Your task to perform on an android device: find snoozed emails in the gmail app Image 0: 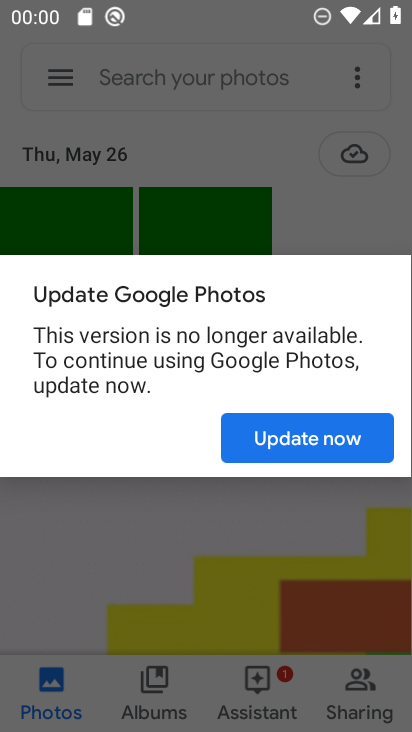
Step 0: press home button
Your task to perform on an android device: find snoozed emails in the gmail app Image 1: 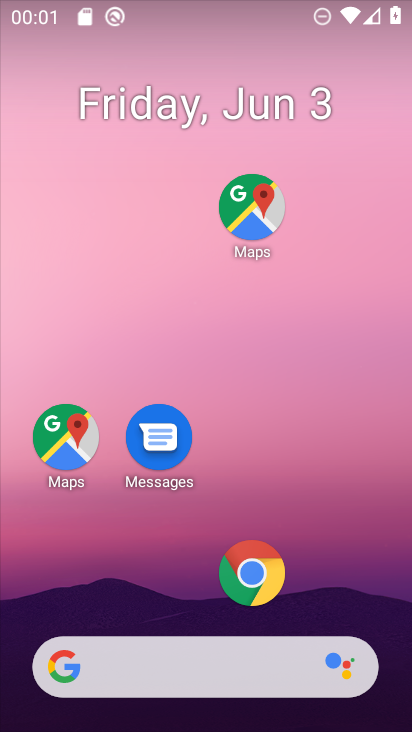
Step 1: drag from (315, 597) to (248, 41)
Your task to perform on an android device: find snoozed emails in the gmail app Image 2: 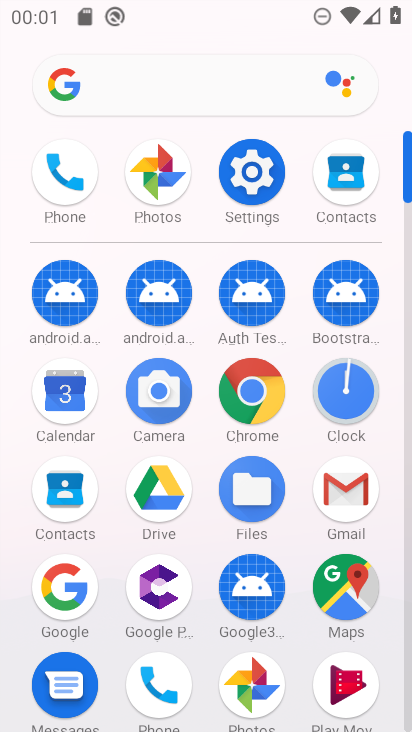
Step 2: click (347, 487)
Your task to perform on an android device: find snoozed emails in the gmail app Image 3: 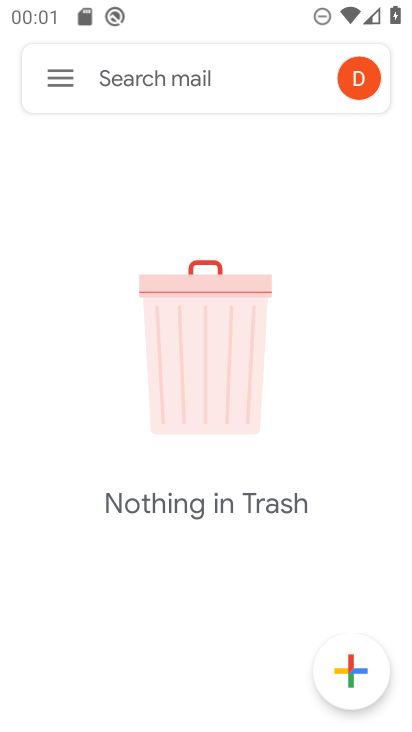
Step 3: click (59, 75)
Your task to perform on an android device: find snoozed emails in the gmail app Image 4: 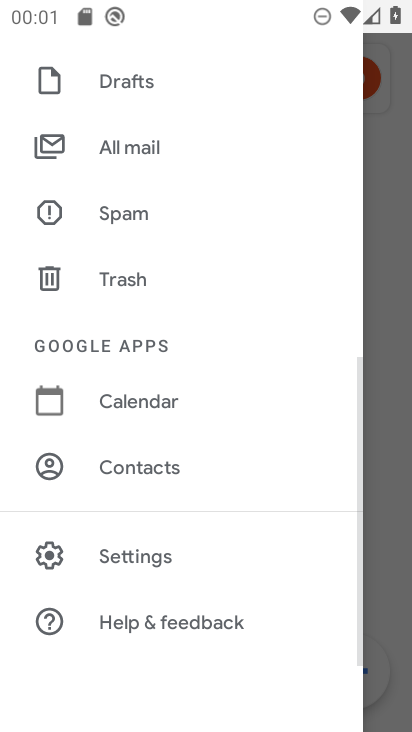
Step 4: drag from (149, 152) to (174, 549)
Your task to perform on an android device: find snoozed emails in the gmail app Image 5: 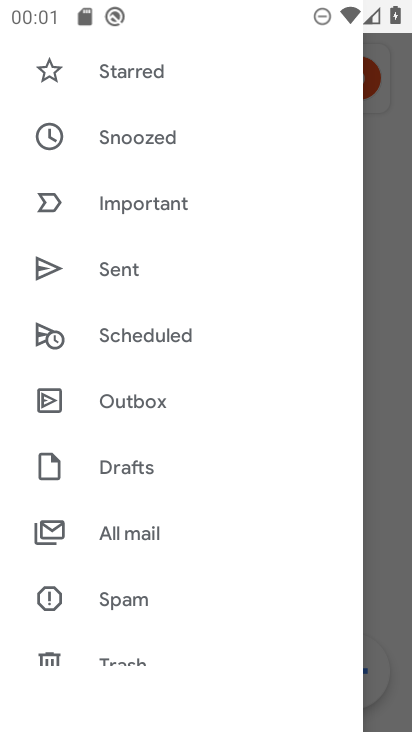
Step 5: click (147, 144)
Your task to perform on an android device: find snoozed emails in the gmail app Image 6: 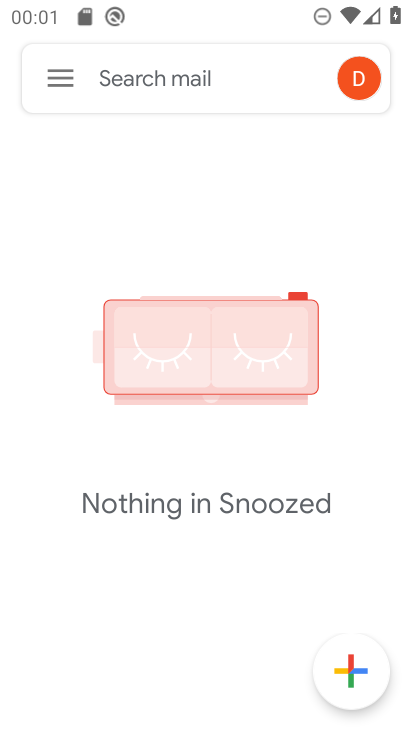
Step 6: task complete